Your task to perform on an android device: change timer sound Image 0: 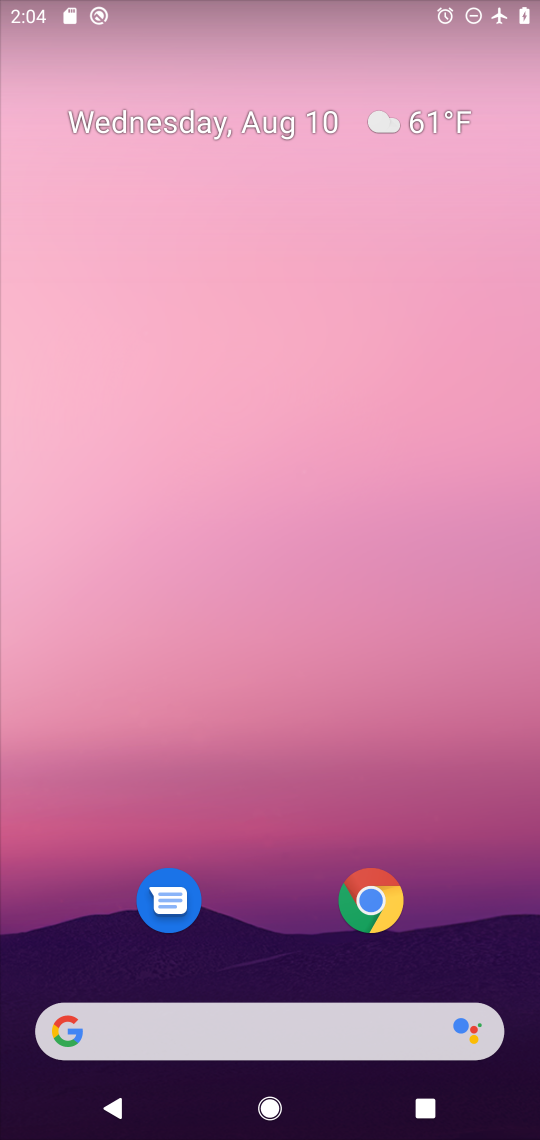
Step 0: drag from (275, 889) to (355, 0)
Your task to perform on an android device: change timer sound Image 1: 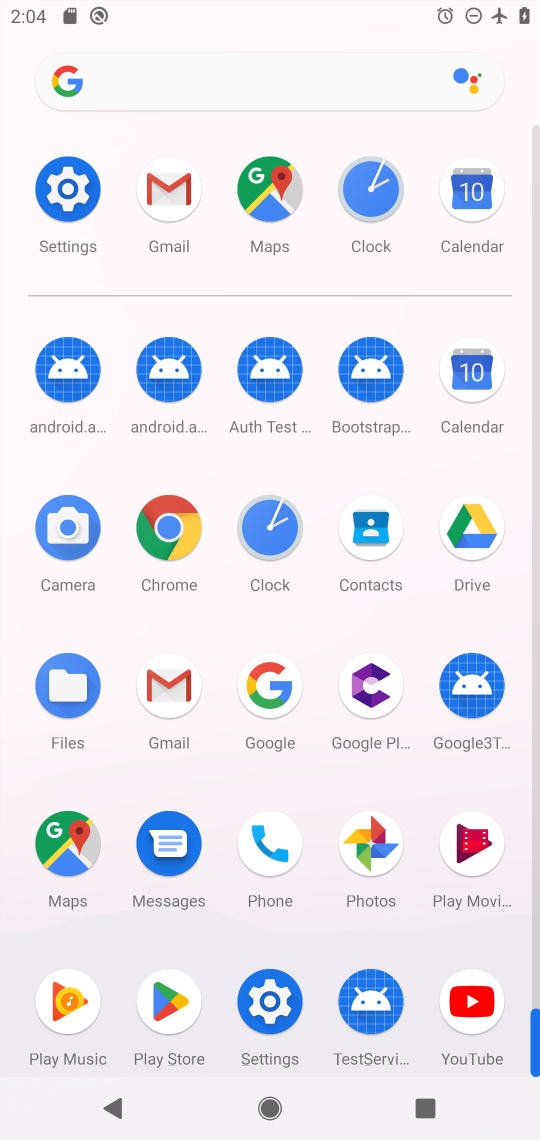
Step 1: click (374, 195)
Your task to perform on an android device: change timer sound Image 2: 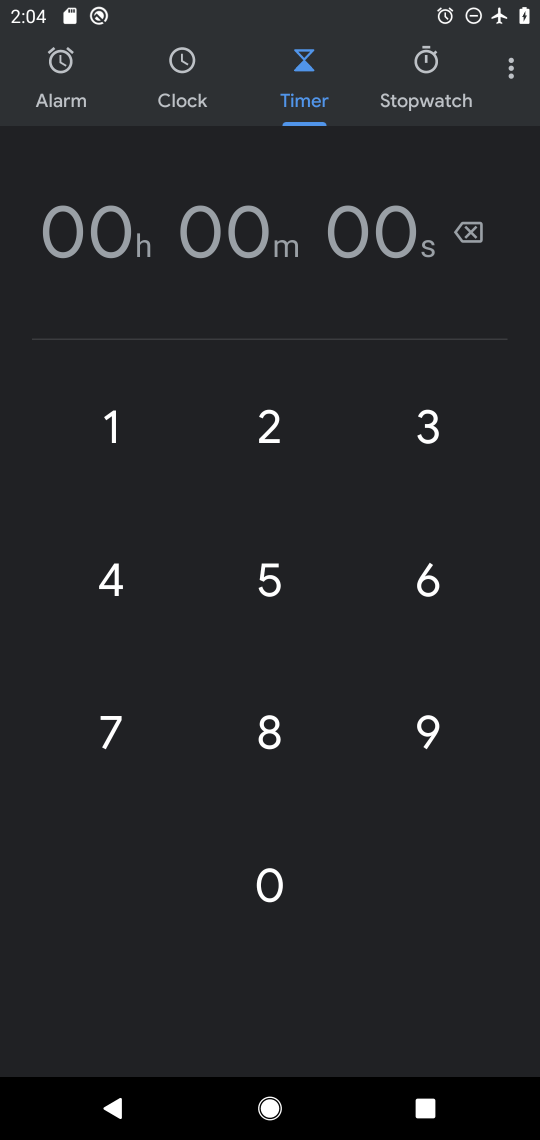
Step 2: click (511, 67)
Your task to perform on an android device: change timer sound Image 3: 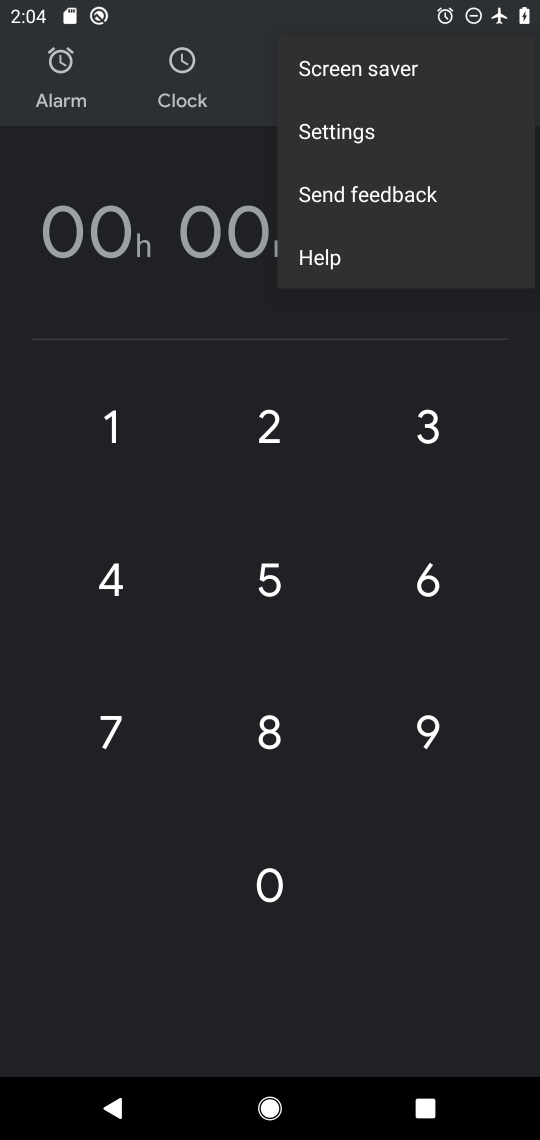
Step 3: click (403, 127)
Your task to perform on an android device: change timer sound Image 4: 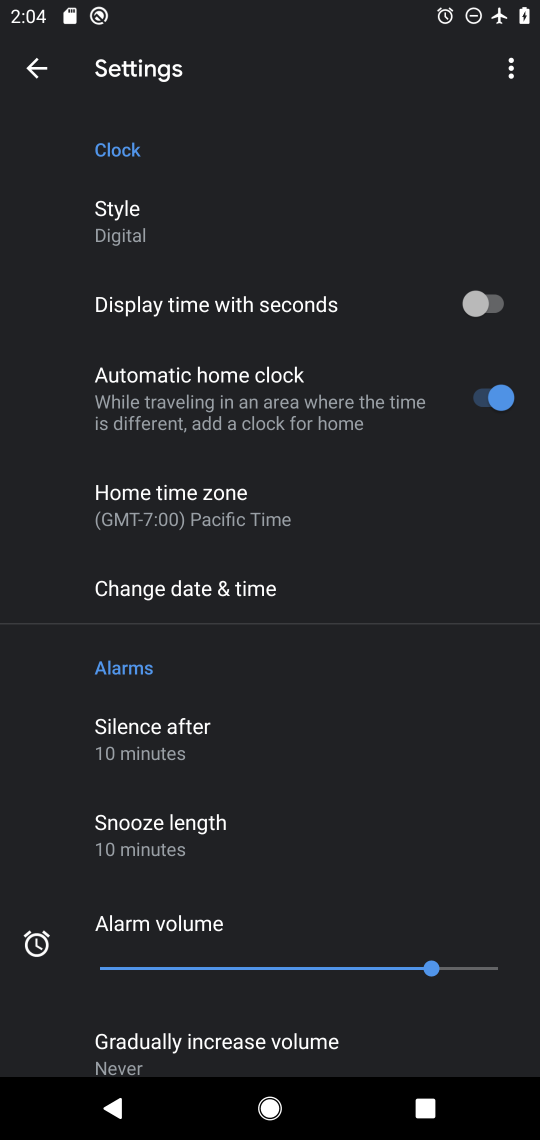
Step 4: drag from (320, 848) to (436, 0)
Your task to perform on an android device: change timer sound Image 5: 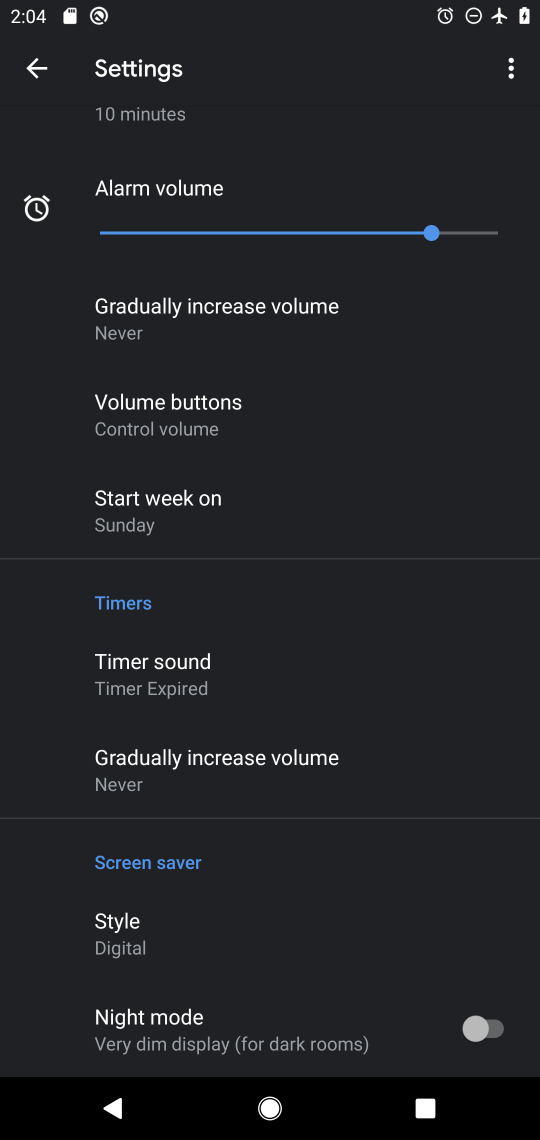
Step 5: click (192, 674)
Your task to perform on an android device: change timer sound Image 6: 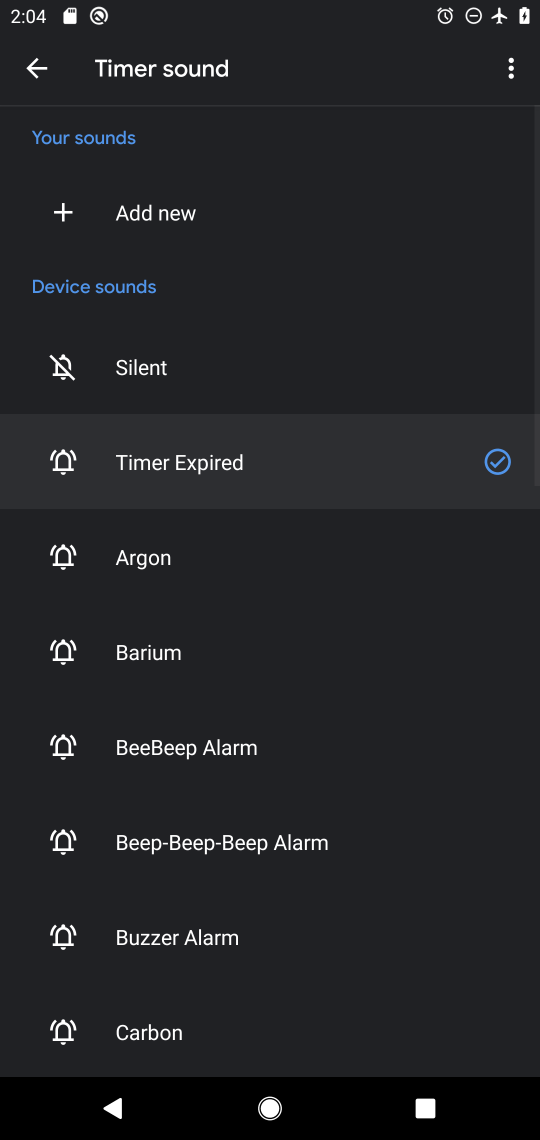
Step 6: click (158, 578)
Your task to perform on an android device: change timer sound Image 7: 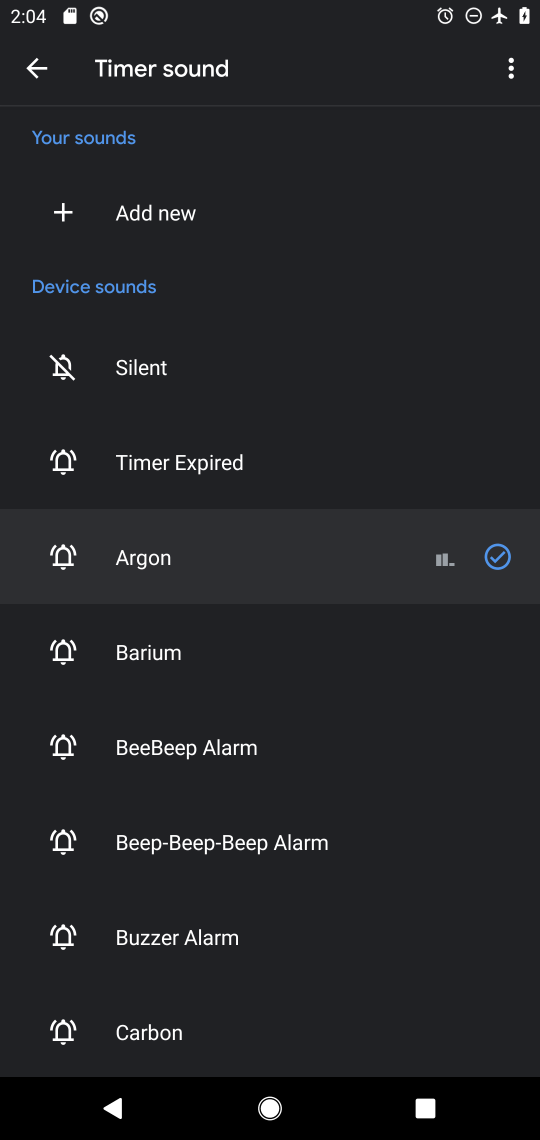
Step 7: task complete